Your task to perform on an android device: Open Chrome and go to the settings page Image 0: 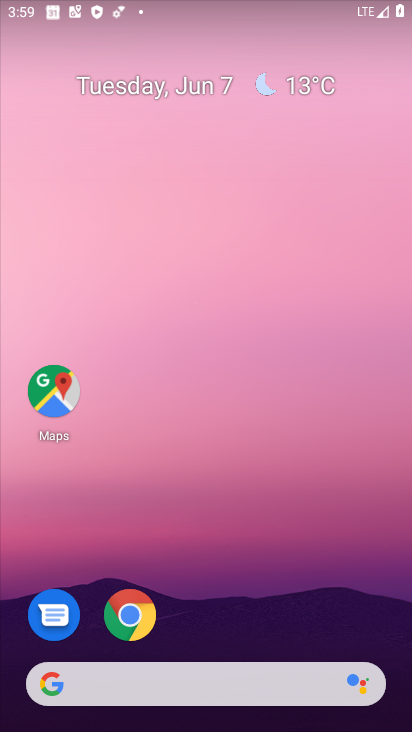
Step 0: click (144, 616)
Your task to perform on an android device: Open Chrome and go to the settings page Image 1: 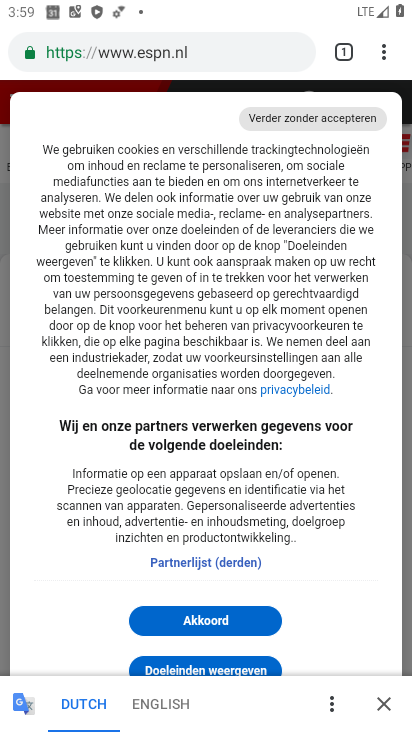
Step 1: click (387, 58)
Your task to perform on an android device: Open Chrome and go to the settings page Image 2: 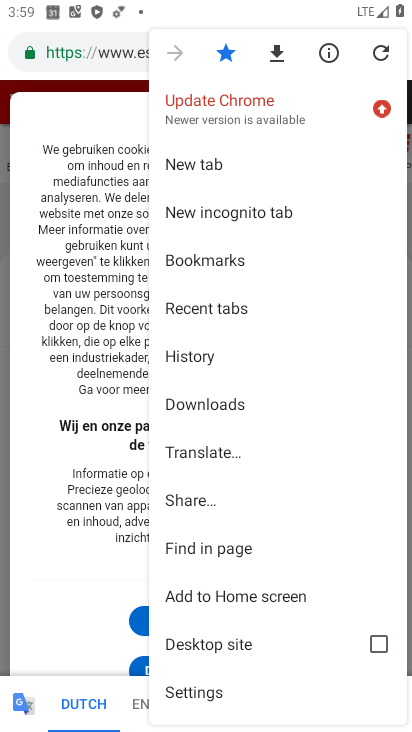
Step 2: click (208, 688)
Your task to perform on an android device: Open Chrome and go to the settings page Image 3: 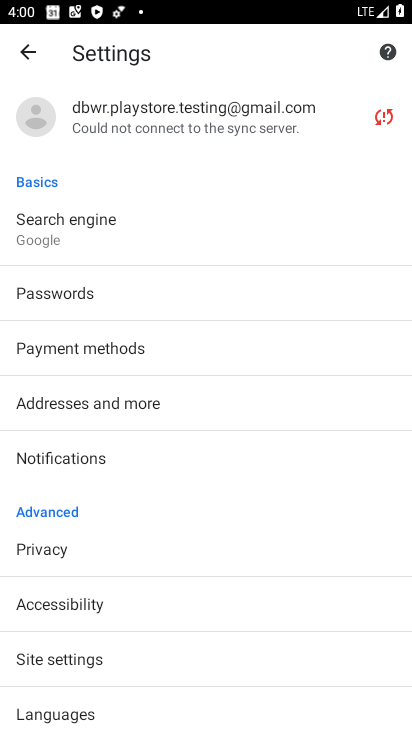
Step 3: task complete